Your task to perform on an android device: What is the news today? Image 0: 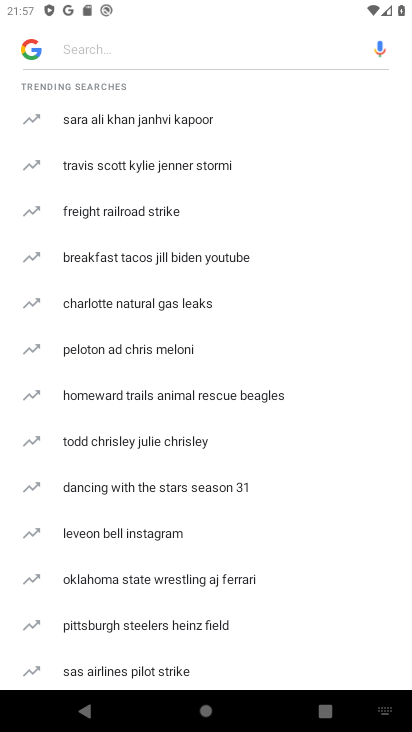
Step 0: press home button
Your task to perform on an android device: What is the news today? Image 1: 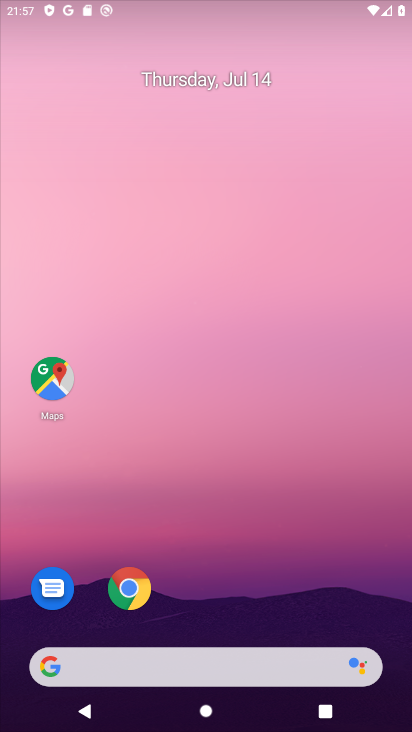
Step 1: drag from (240, 615) to (252, 104)
Your task to perform on an android device: What is the news today? Image 2: 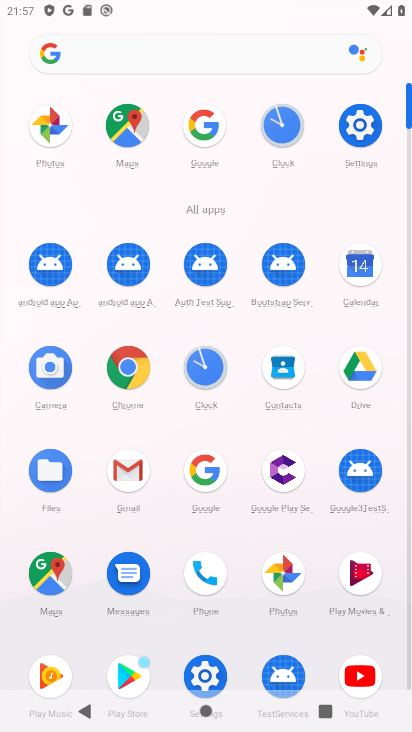
Step 2: click (202, 126)
Your task to perform on an android device: What is the news today? Image 3: 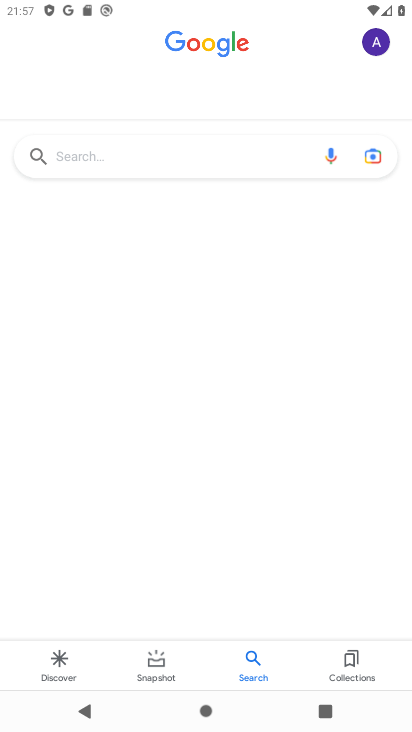
Step 3: click (158, 166)
Your task to perform on an android device: What is the news today? Image 4: 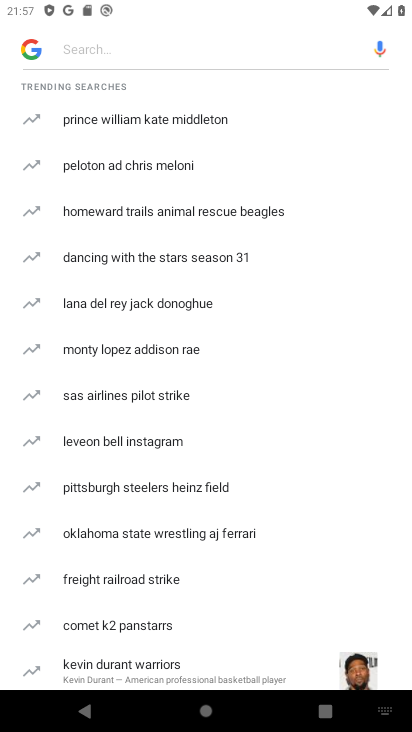
Step 4: type "what is news today"
Your task to perform on an android device: What is the news today? Image 5: 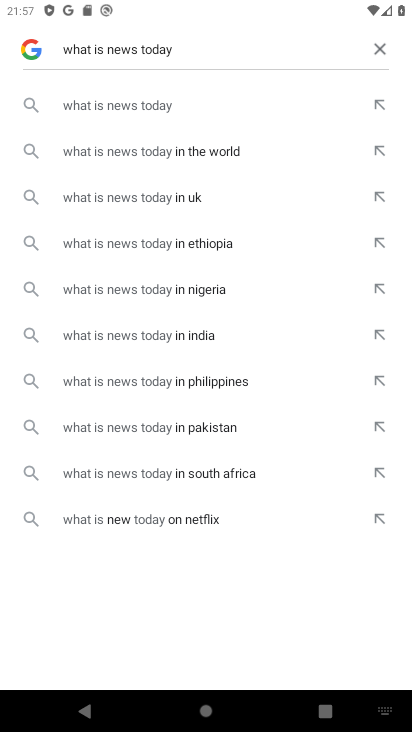
Step 5: click (130, 107)
Your task to perform on an android device: What is the news today? Image 6: 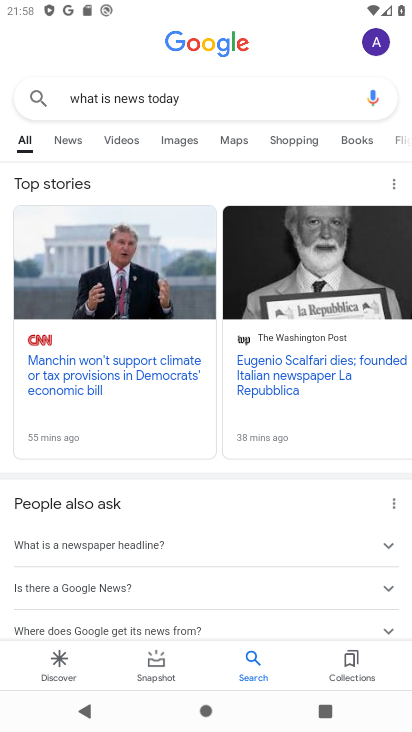
Step 6: task complete